Your task to perform on an android device: toggle improve location accuracy Image 0: 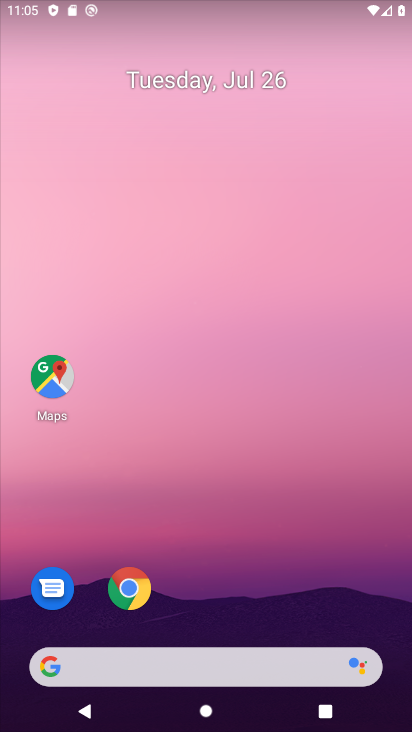
Step 0: drag from (193, 445) to (198, 140)
Your task to perform on an android device: toggle improve location accuracy Image 1: 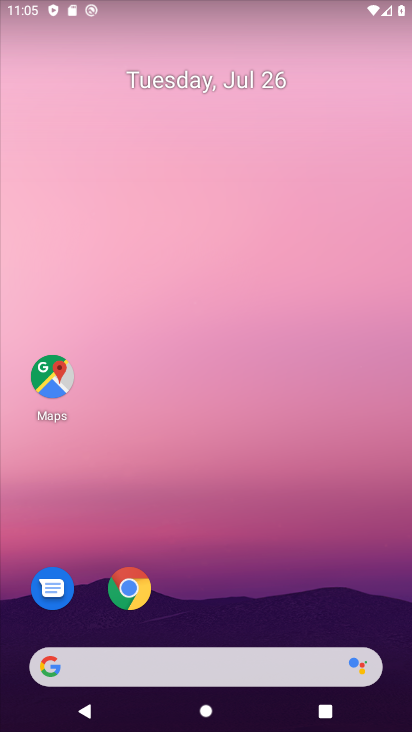
Step 1: drag from (187, 536) to (195, 85)
Your task to perform on an android device: toggle improve location accuracy Image 2: 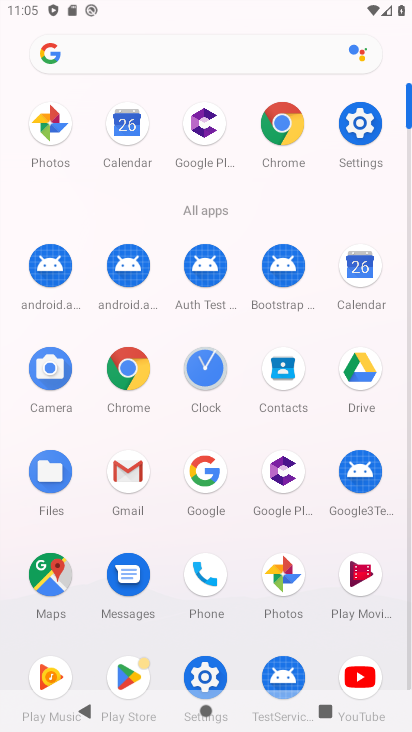
Step 2: click (362, 119)
Your task to perform on an android device: toggle improve location accuracy Image 3: 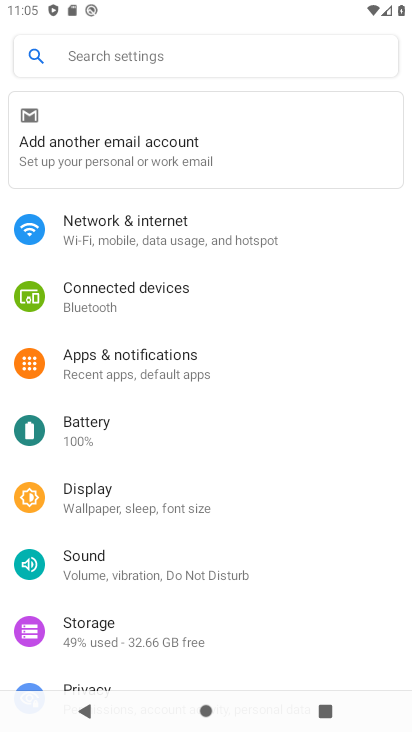
Step 3: drag from (127, 576) to (144, 299)
Your task to perform on an android device: toggle improve location accuracy Image 4: 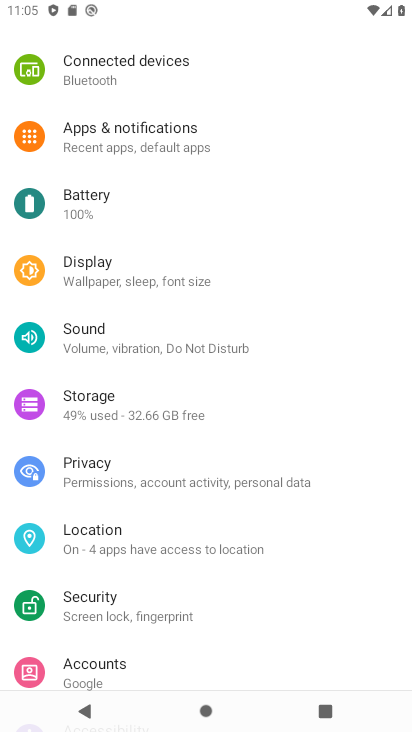
Step 4: click (86, 537)
Your task to perform on an android device: toggle improve location accuracy Image 5: 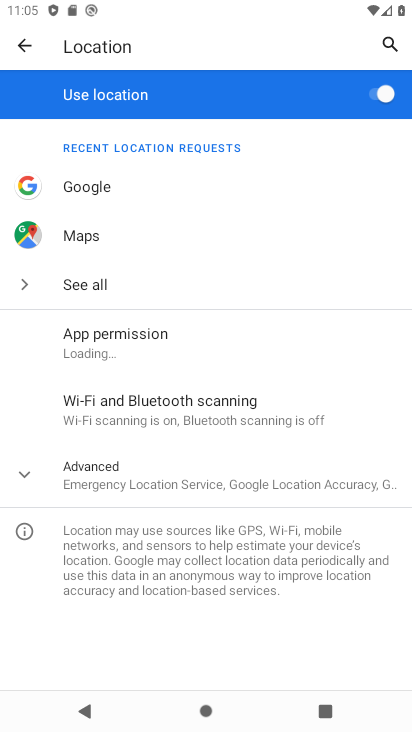
Step 5: click (80, 473)
Your task to perform on an android device: toggle improve location accuracy Image 6: 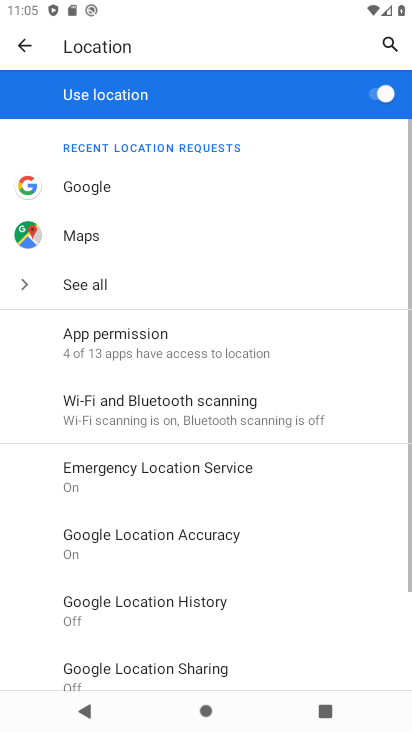
Step 6: click (132, 538)
Your task to perform on an android device: toggle improve location accuracy Image 7: 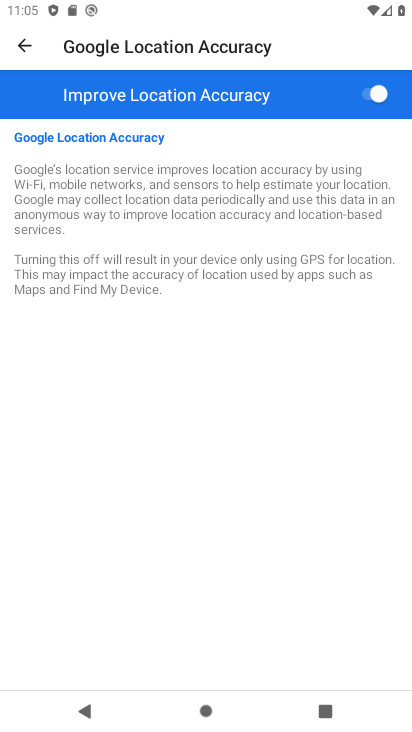
Step 7: click (368, 96)
Your task to perform on an android device: toggle improve location accuracy Image 8: 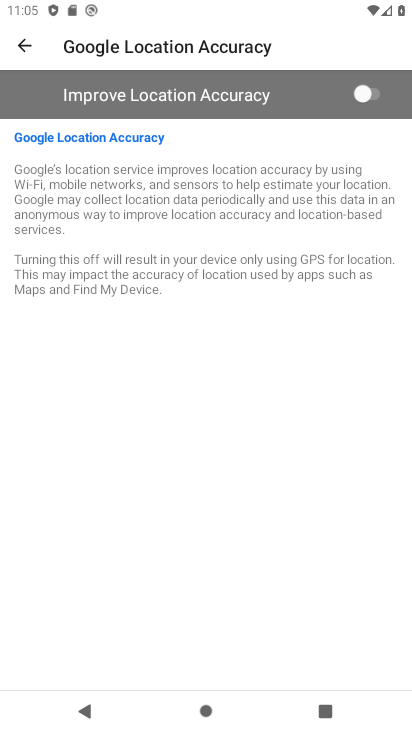
Step 8: task complete